Your task to perform on an android device: Open settings Image 0: 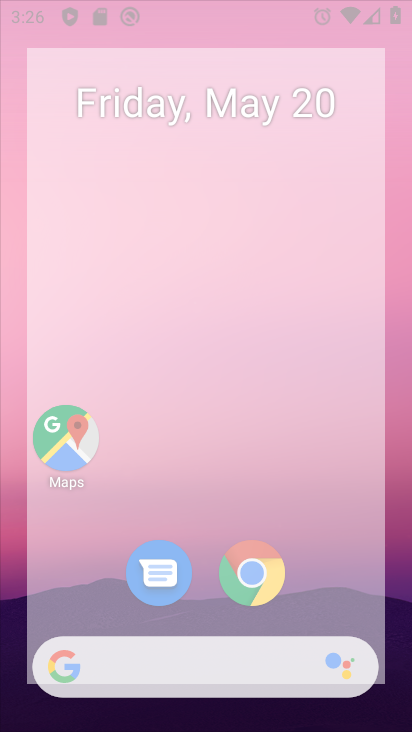
Step 0: drag from (214, 618) to (206, 19)
Your task to perform on an android device: Open settings Image 1: 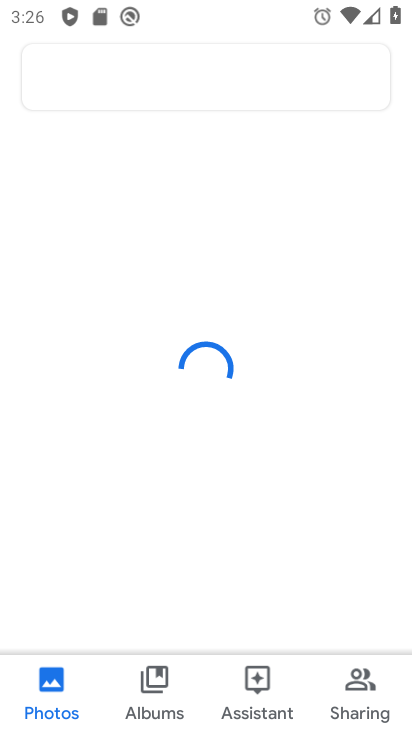
Step 1: press home button
Your task to perform on an android device: Open settings Image 2: 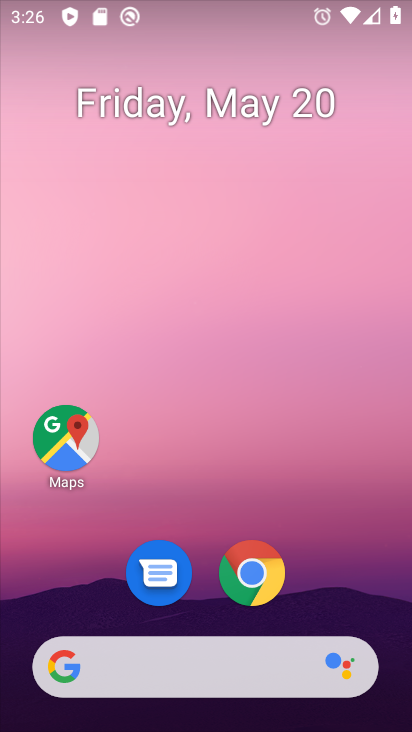
Step 2: drag from (182, 632) to (172, 122)
Your task to perform on an android device: Open settings Image 3: 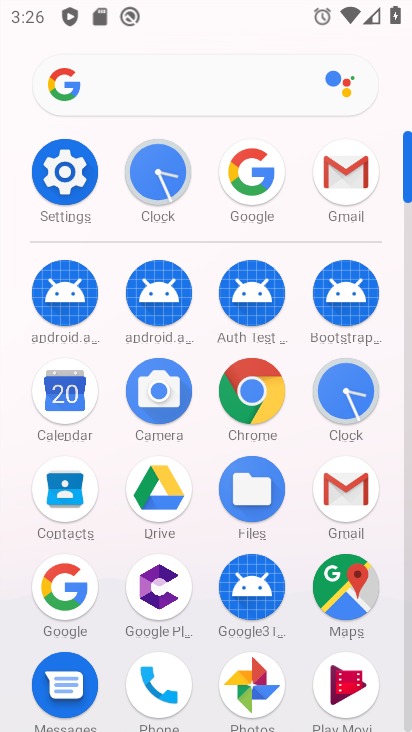
Step 3: click (42, 168)
Your task to perform on an android device: Open settings Image 4: 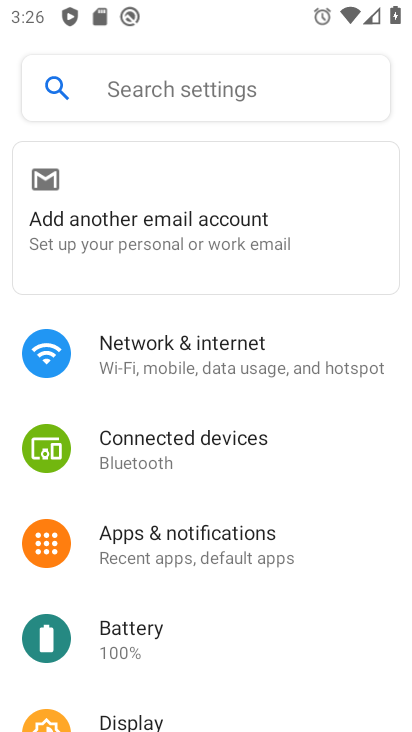
Step 4: task complete